Your task to perform on an android device: toggle priority inbox in the gmail app Image 0: 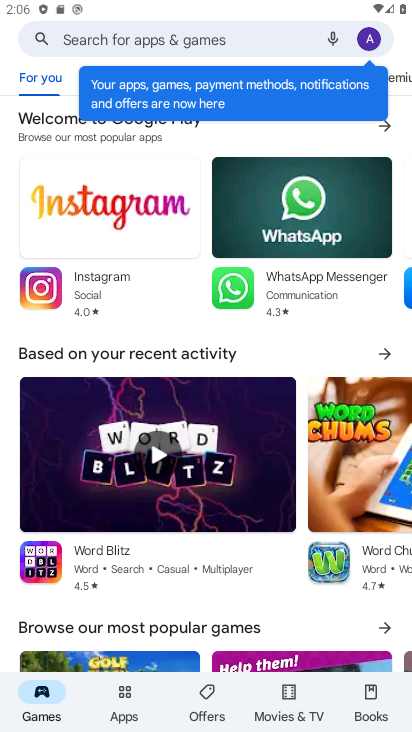
Step 0: press home button
Your task to perform on an android device: toggle priority inbox in the gmail app Image 1: 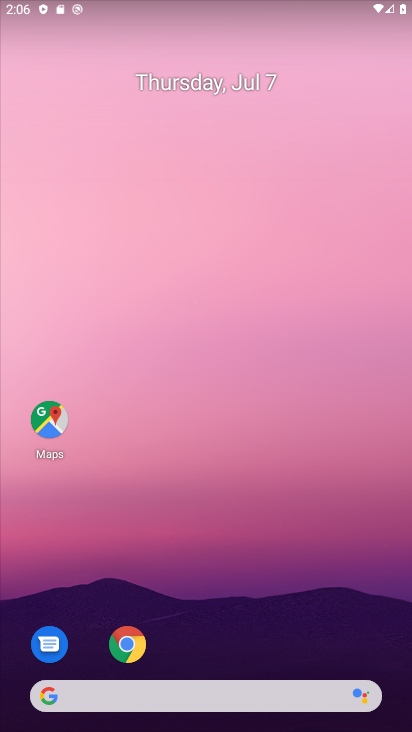
Step 1: drag from (275, 598) to (179, 136)
Your task to perform on an android device: toggle priority inbox in the gmail app Image 2: 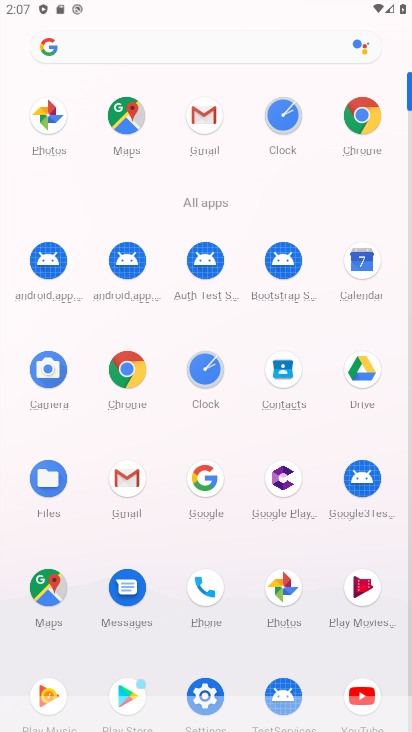
Step 2: click (209, 124)
Your task to perform on an android device: toggle priority inbox in the gmail app Image 3: 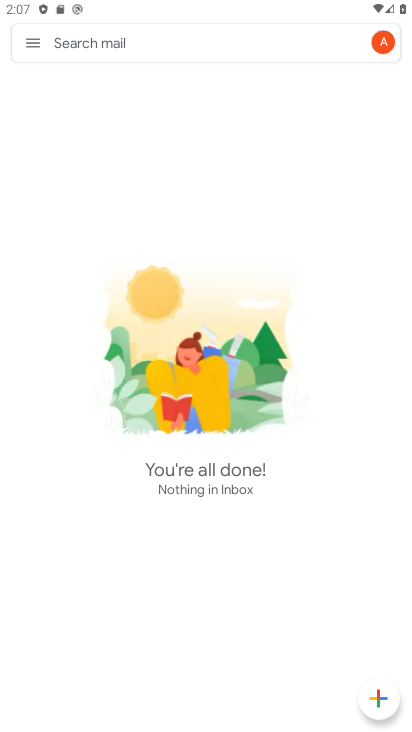
Step 3: click (32, 47)
Your task to perform on an android device: toggle priority inbox in the gmail app Image 4: 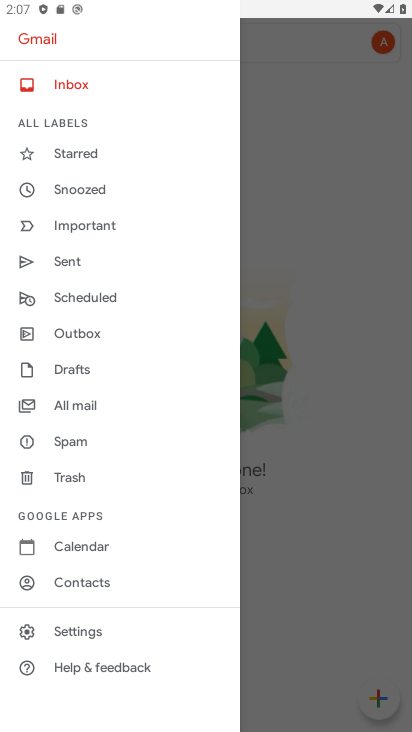
Step 4: click (106, 625)
Your task to perform on an android device: toggle priority inbox in the gmail app Image 5: 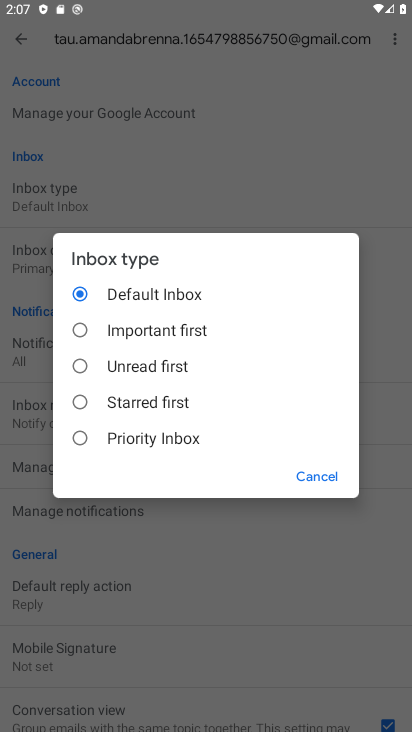
Step 5: click (187, 439)
Your task to perform on an android device: toggle priority inbox in the gmail app Image 6: 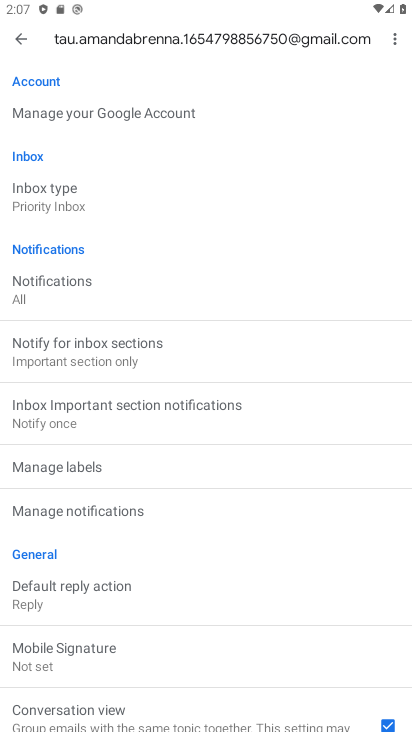
Step 6: task complete